Your task to perform on an android device: all mails in gmail Image 0: 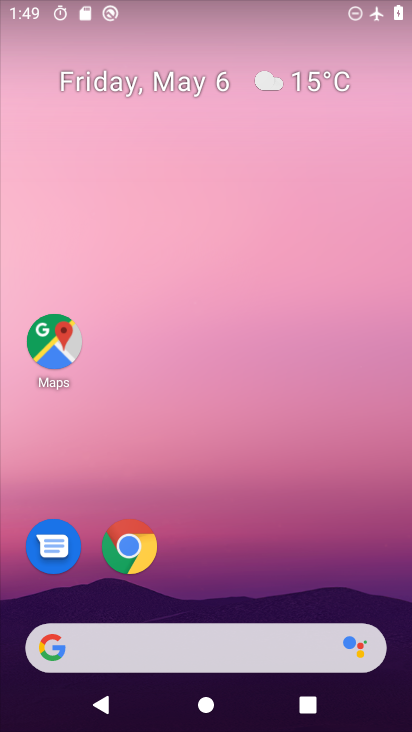
Step 0: drag from (263, 484) to (279, 64)
Your task to perform on an android device: all mails in gmail Image 1: 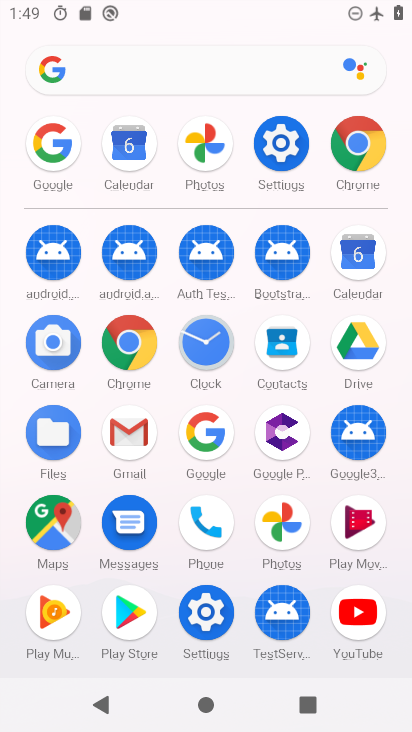
Step 1: click (134, 442)
Your task to perform on an android device: all mails in gmail Image 2: 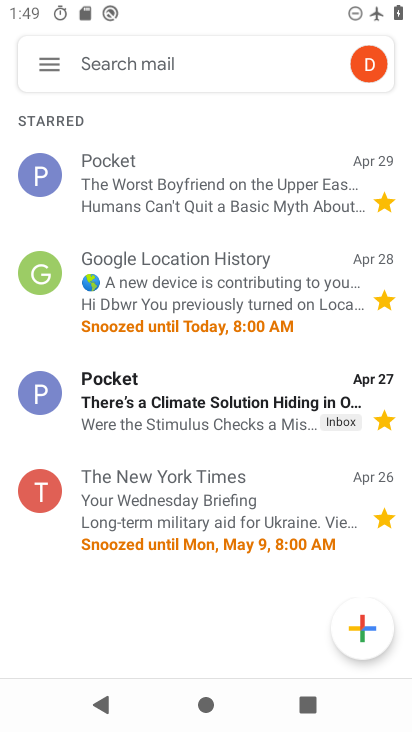
Step 2: click (53, 62)
Your task to perform on an android device: all mails in gmail Image 3: 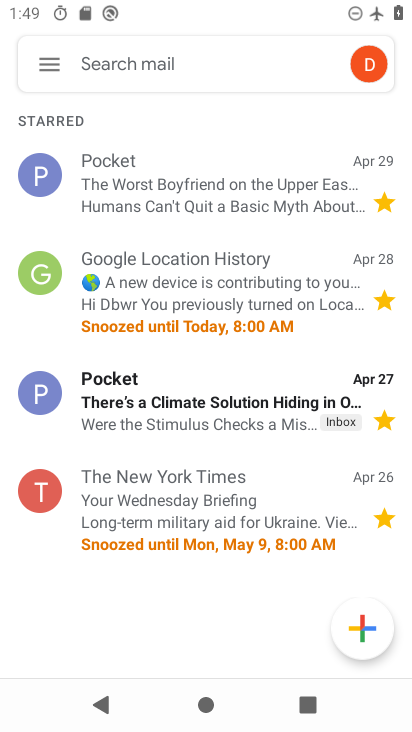
Step 3: click (53, 62)
Your task to perform on an android device: all mails in gmail Image 4: 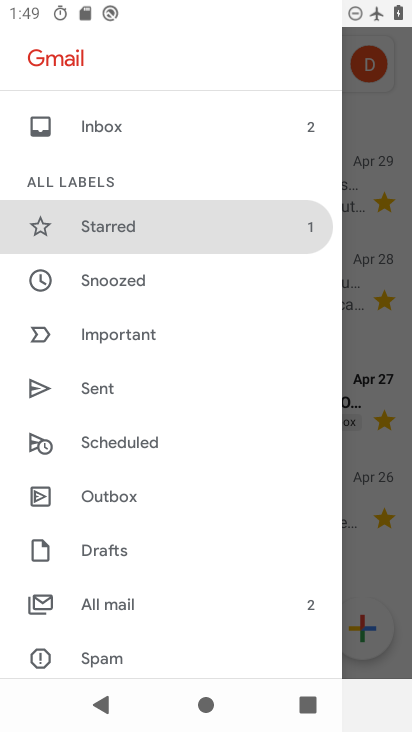
Step 4: click (141, 602)
Your task to perform on an android device: all mails in gmail Image 5: 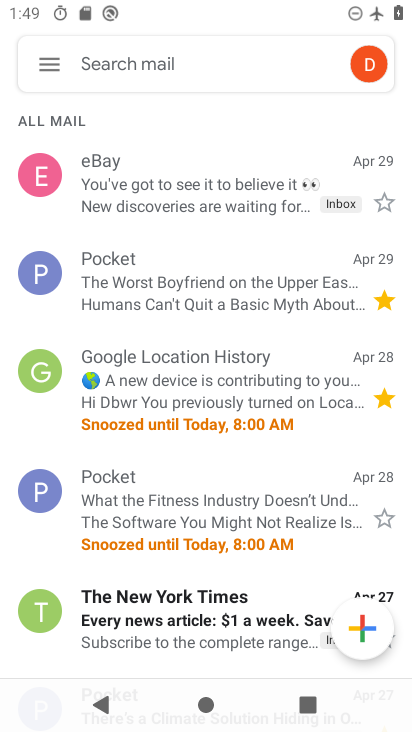
Step 5: task complete